Your task to perform on an android device: toggle show notifications on the lock screen Image 0: 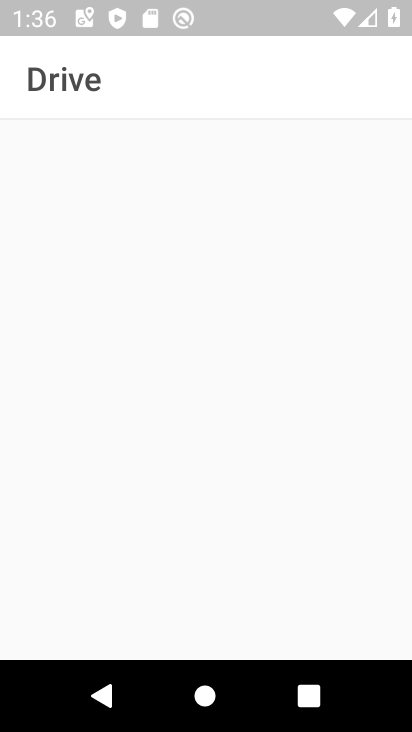
Step 0: press home button
Your task to perform on an android device: toggle show notifications on the lock screen Image 1: 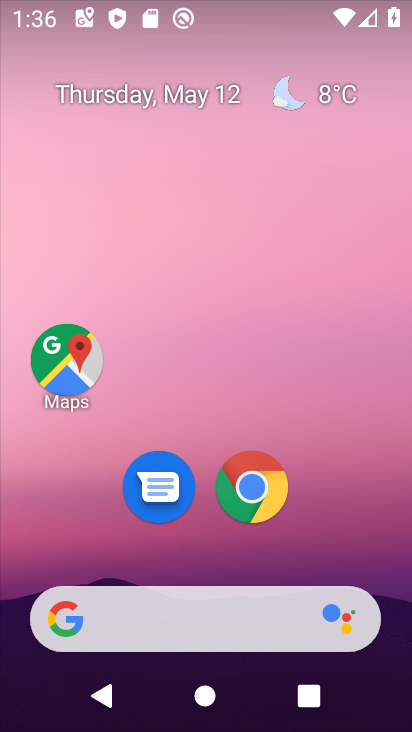
Step 1: drag from (258, 556) to (195, 4)
Your task to perform on an android device: toggle show notifications on the lock screen Image 2: 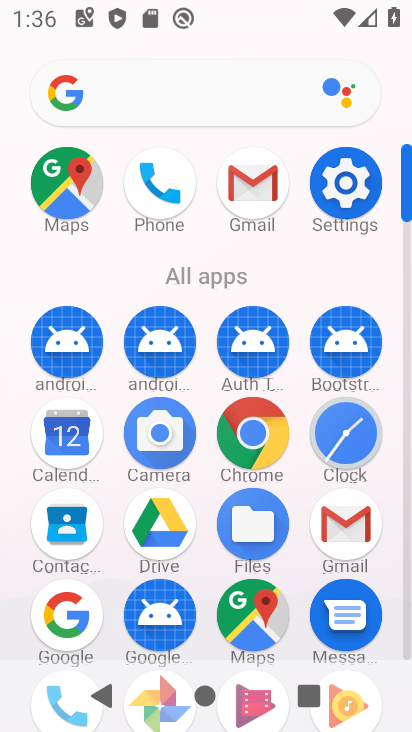
Step 2: click (333, 195)
Your task to perform on an android device: toggle show notifications on the lock screen Image 3: 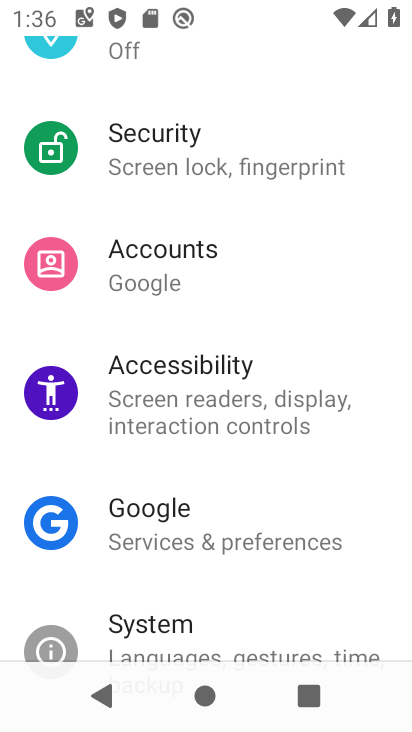
Step 3: drag from (273, 94) to (261, 522)
Your task to perform on an android device: toggle show notifications on the lock screen Image 4: 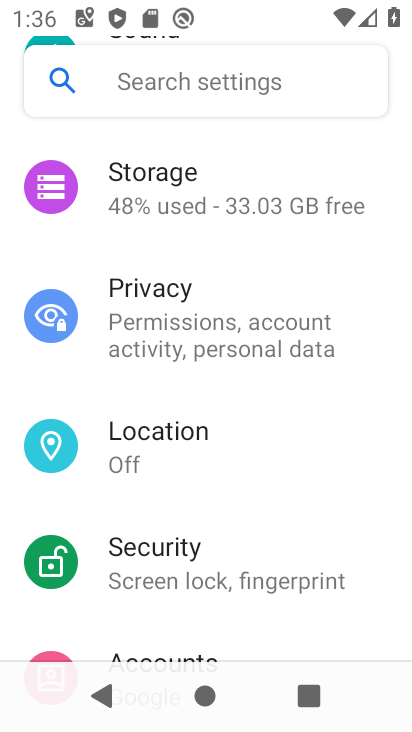
Step 4: drag from (102, 217) to (206, 535)
Your task to perform on an android device: toggle show notifications on the lock screen Image 5: 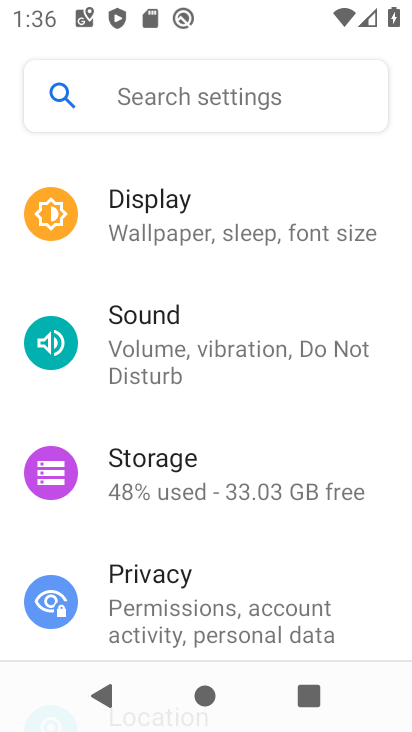
Step 5: drag from (173, 394) to (206, 581)
Your task to perform on an android device: toggle show notifications on the lock screen Image 6: 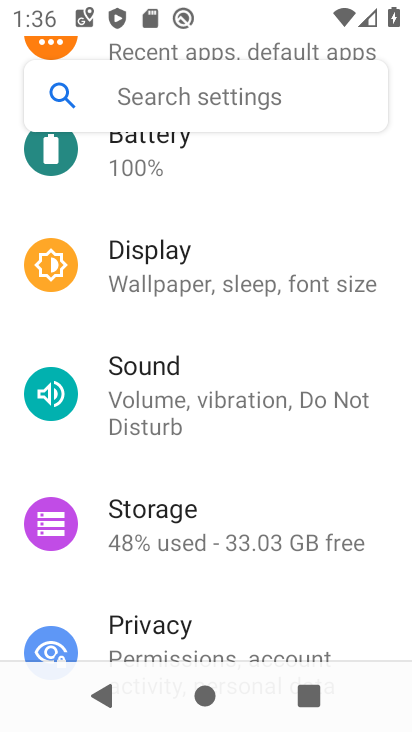
Step 6: drag from (256, 341) to (277, 611)
Your task to perform on an android device: toggle show notifications on the lock screen Image 7: 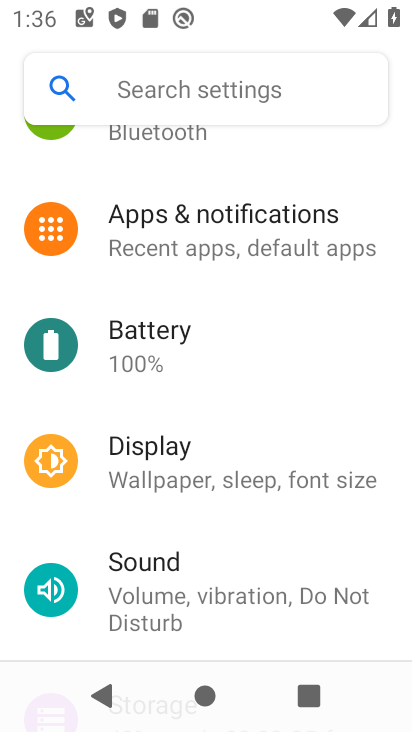
Step 7: click (278, 215)
Your task to perform on an android device: toggle show notifications on the lock screen Image 8: 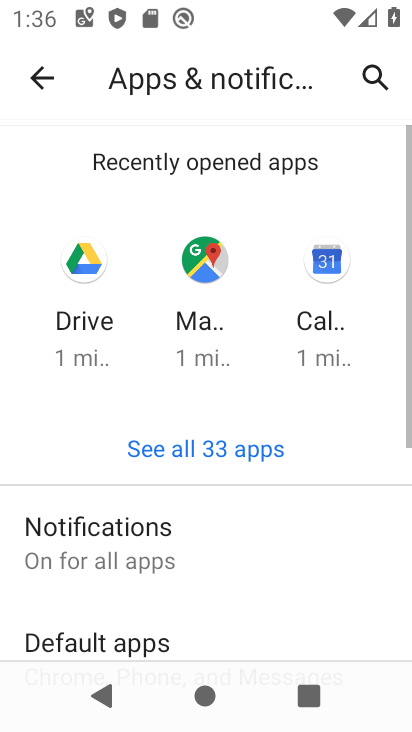
Step 8: click (232, 515)
Your task to perform on an android device: toggle show notifications on the lock screen Image 9: 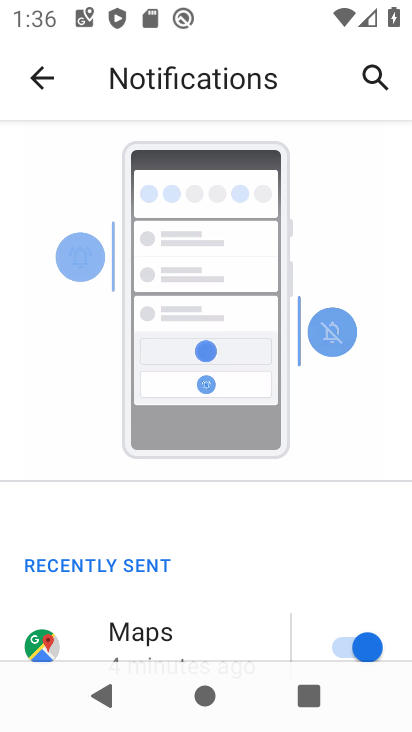
Step 9: drag from (213, 546) to (179, 228)
Your task to perform on an android device: toggle show notifications on the lock screen Image 10: 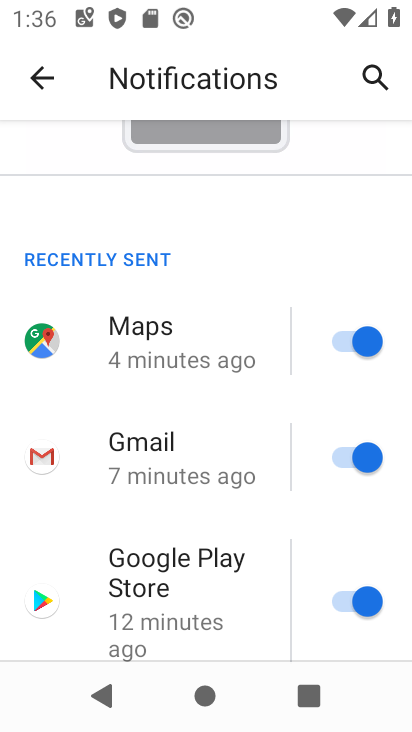
Step 10: drag from (247, 581) to (210, 362)
Your task to perform on an android device: toggle show notifications on the lock screen Image 11: 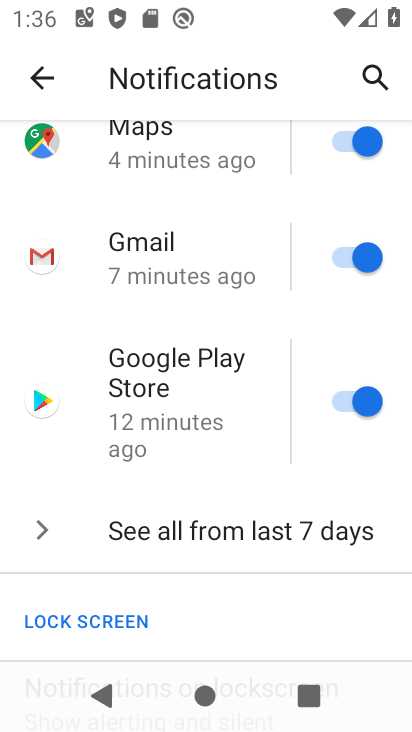
Step 11: drag from (196, 606) to (196, 330)
Your task to perform on an android device: toggle show notifications on the lock screen Image 12: 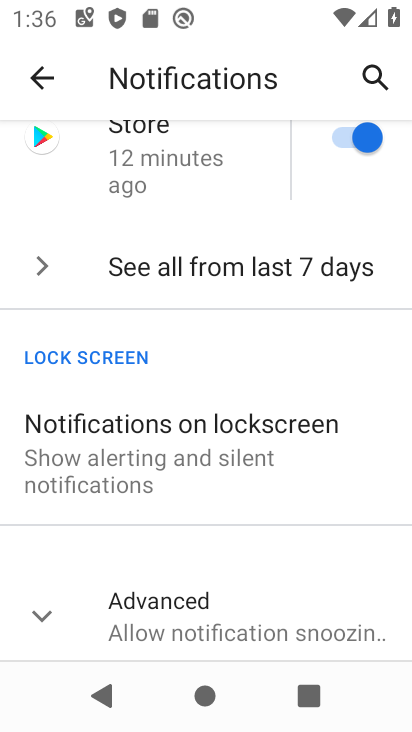
Step 12: click (174, 461)
Your task to perform on an android device: toggle show notifications on the lock screen Image 13: 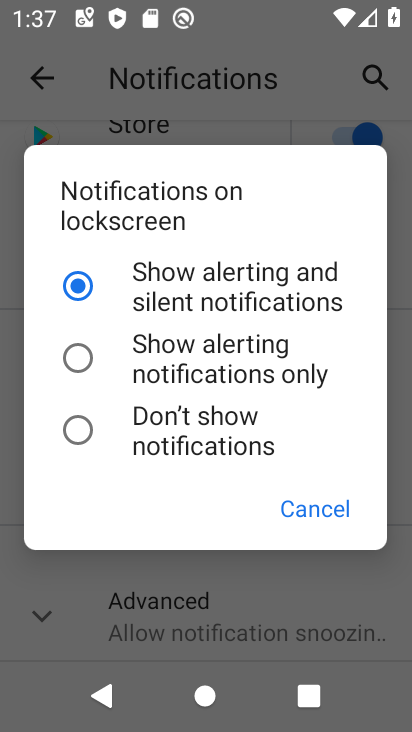
Step 13: click (201, 373)
Your task to perform on an android device: toggle show notifications on the lock screen Image 14: 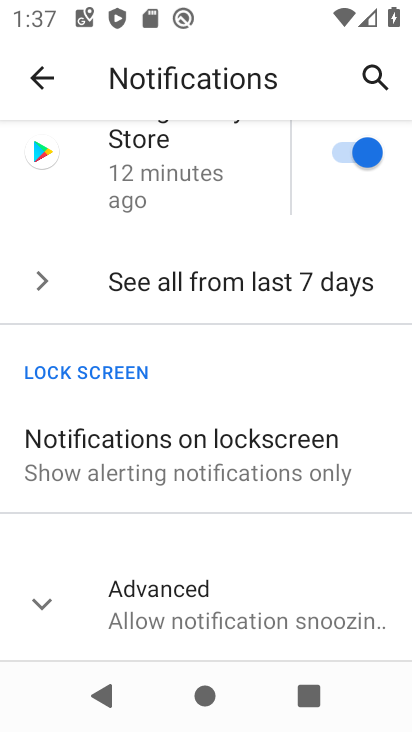
Step 14: task complete